Your task to perform on an android device: toggle priority inbox in the gmail app Image 0: 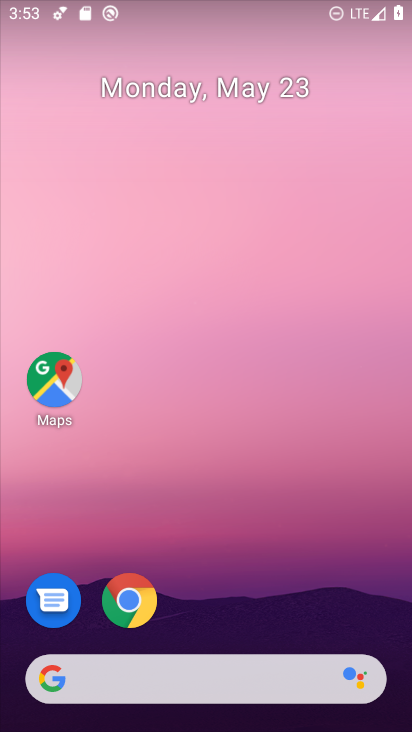
Step 0: drag from (237, 639) to (260, 4)
Your task to perform on an android device: toggle priority inbox in the gmail app Image 1: 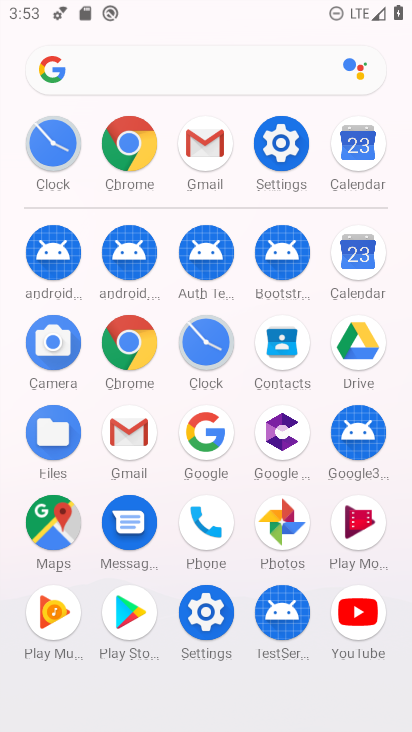
Step 1: click (206, 148)
Your task to perform on an android device: toggle priority inbox in the gmail app Image 2: 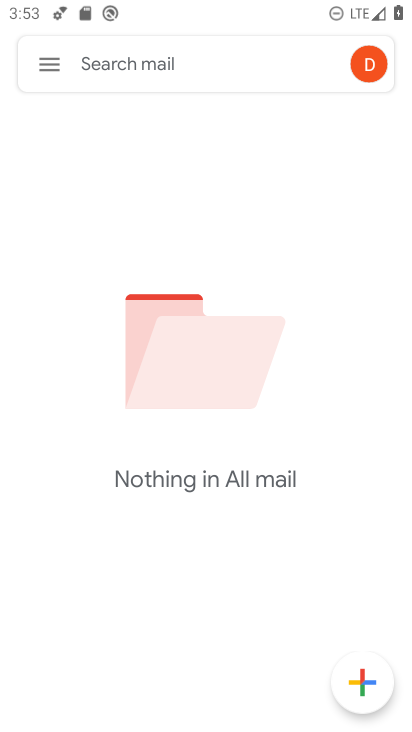
Step 2: click (52, 69)
Your task to perform on an android device: toggle priority inbox in the gmail app Image 3: 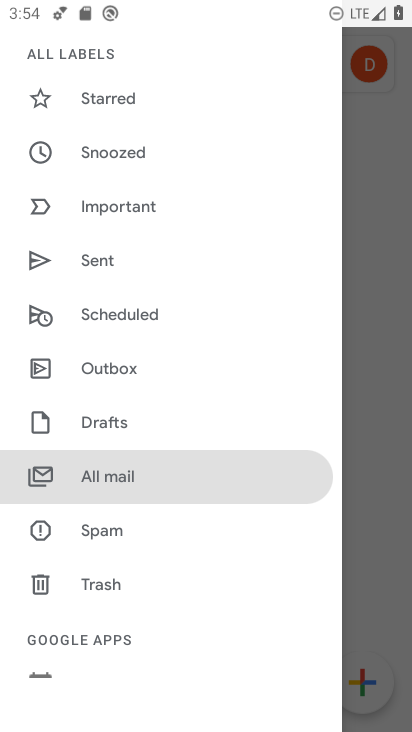
Step 3: drag from (179, 497) to (158, 100)
Your task to perform on an android device: toggle priority inbox in the gmail app Image 4: 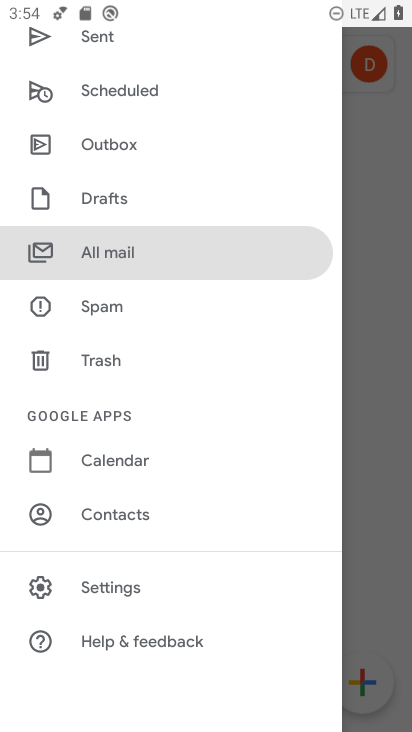
Step 4: click (108, 589)
Your task to perform on an android device: toggle priority inbox in the gmail app Image 5: 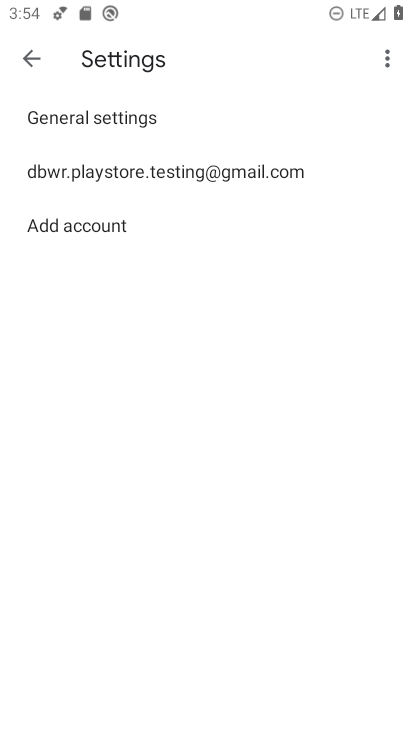
Step 5: click (107, 174)
Your task to perform on an android device: toggle priority inbox in the gmail app Image 6: 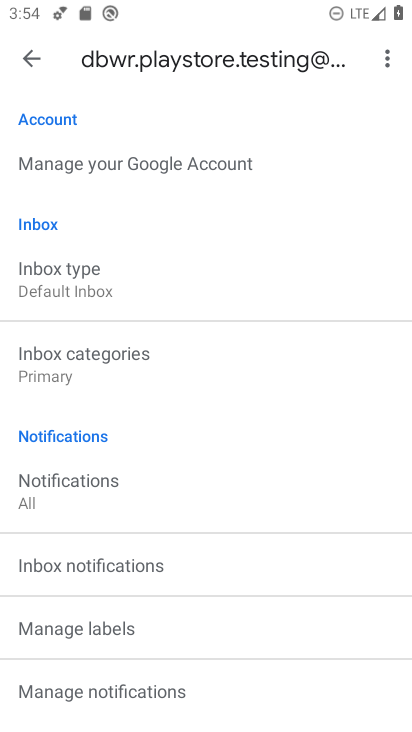
Step 6: click (51, 283)
Your task to perform on an android device: toggle priority inbox in the gmail app Image 7: 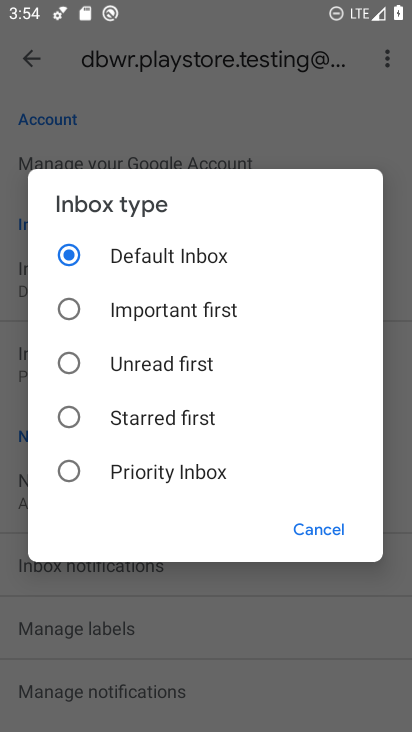
Step 7: click (64, 469)
Your task to perform on an android device: toggle priority inbox in the gmail app Image 8: 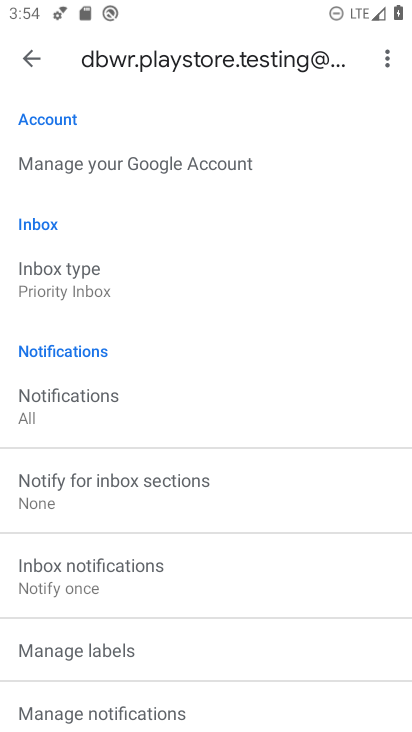
Step 8: task complete